Your task to perform on an android device: Open eBay Image 0: 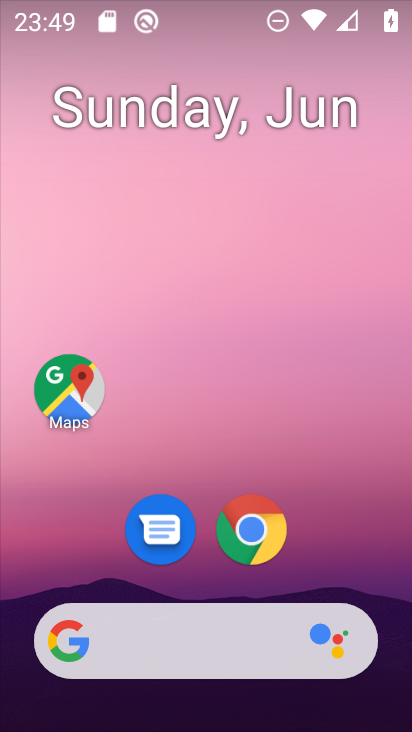
Step 0: click (253, 527)
Your task to perform on an android device: Open eBay Image 1: 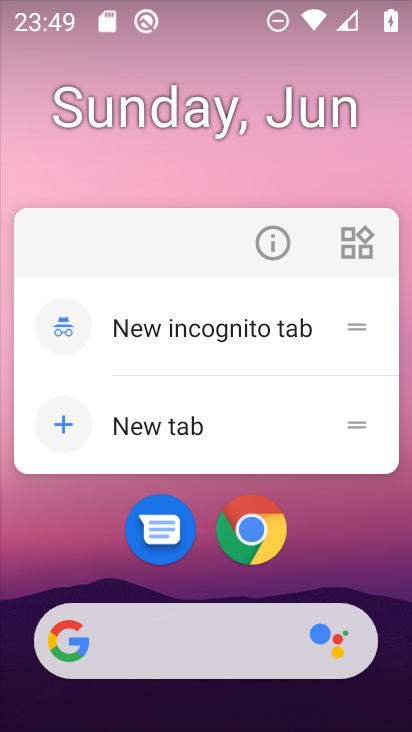
Step 1: click (253, 527)
Your task to perform on an android device: Open eBay Image 2: 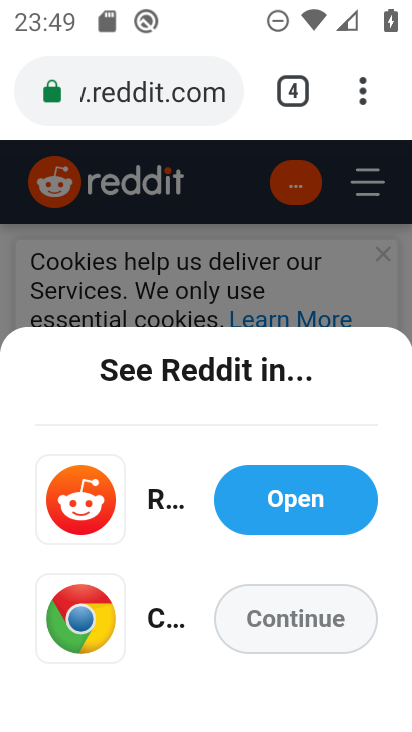
Step 2: click (210, 68)
Your task to perform on an android device: Open eBay Image 3: 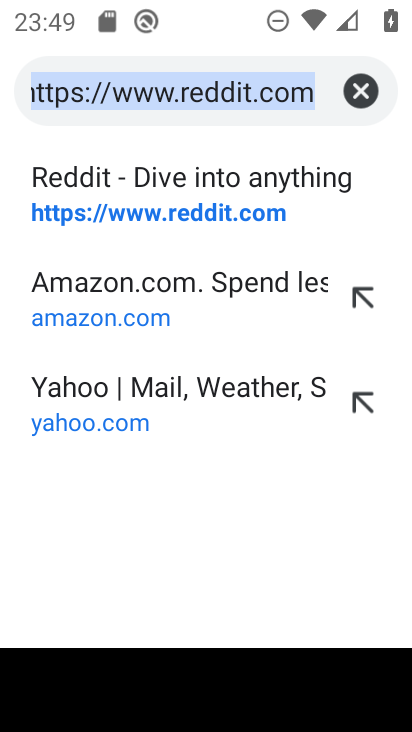
Step 3: click (369, 86)
Your task to perform on an android device: Open eBay Image 4: 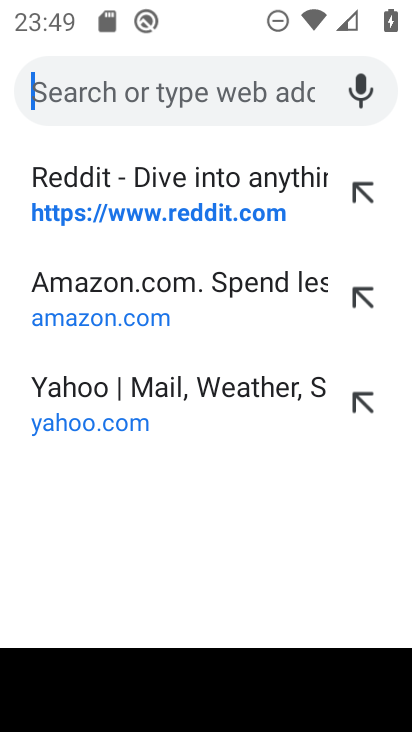
Step 4: type "ebay"
Your task to perform on an android device: Open eBay Image 5: 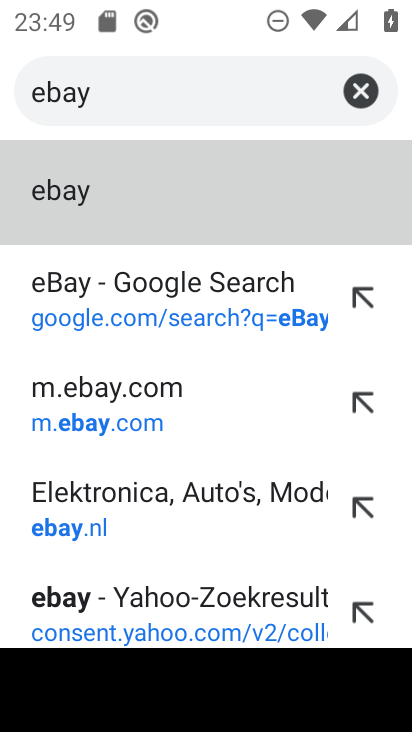
Step 5: click (68, 185)
Your task to perform on an android device: Open eBay Image 6: 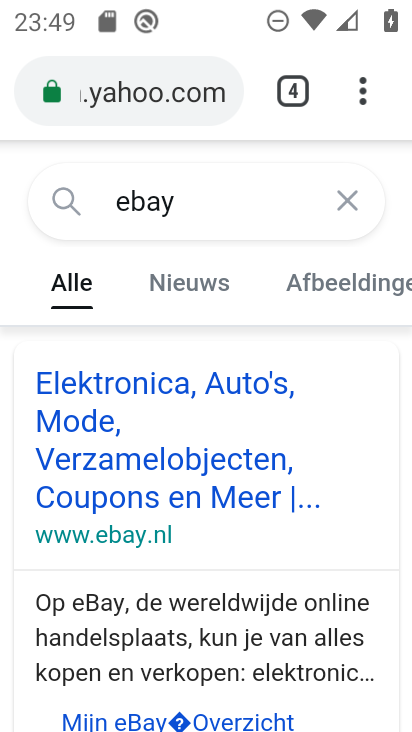
Step 6: click (100, 502)
Your task to perform on an android device: Open eBay Image 7: 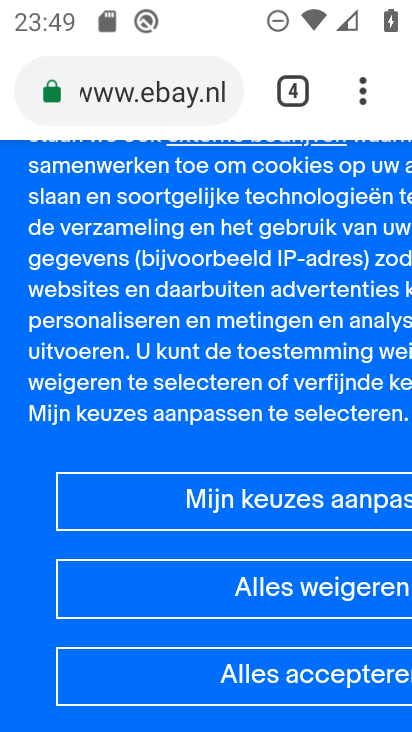
Step 7: task complete